Your task to perform on an android device: Go to wifi settings Image 0: 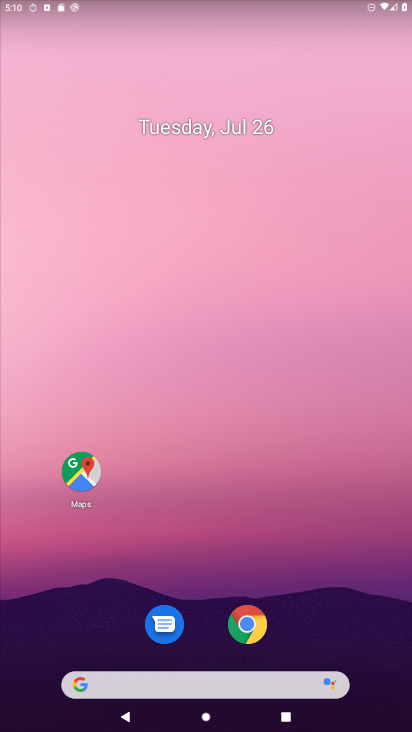
Step 0: drag from (273, 574) to (328, 21)
Your task to perform on an android device: Go to wifi settings Image 1: 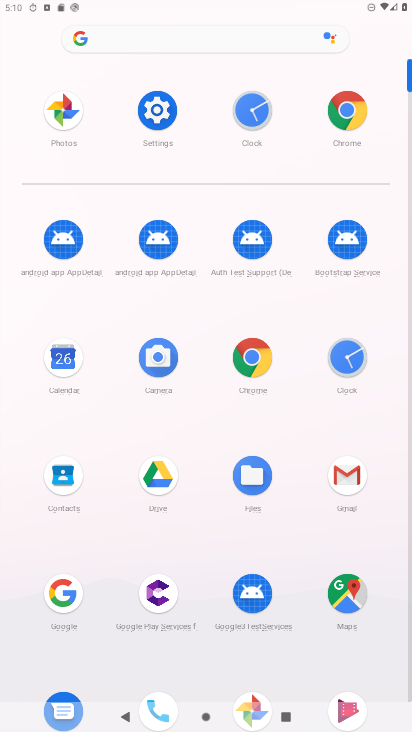
Step 1: click (164, 122)
Your task to perform on an android device: Go to wifi settings Image 2: 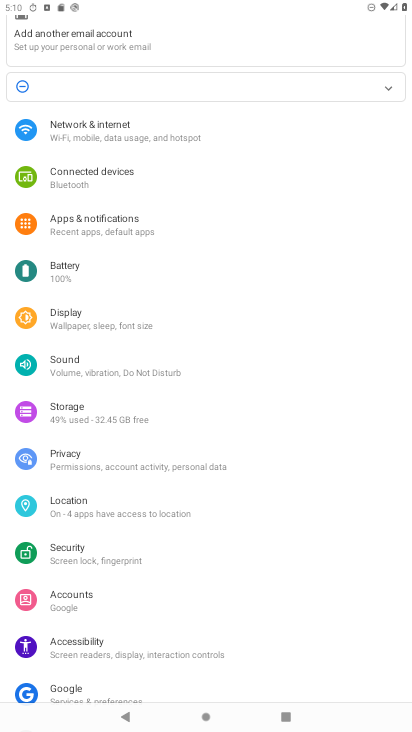
Step 2: click (159, 130)
Your task to perform on an android device: Go to wifi settings Image 3: 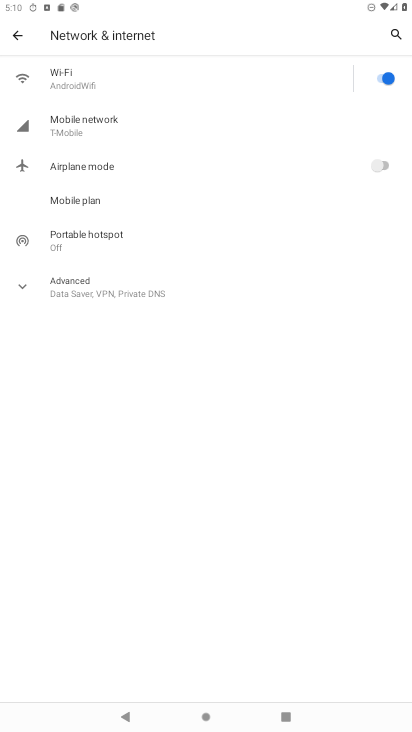
Step 3: click (95, 88)
Your task to perform on an android device: Go to wifi settings Image 4: 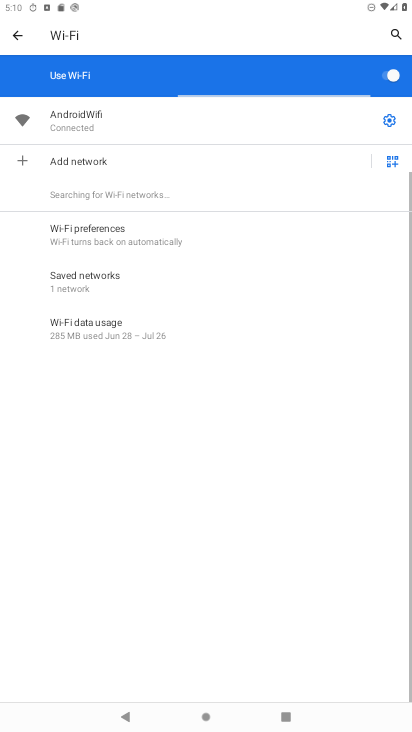
Step 4: task complete